Your task to perform on an android device: turn on data saver in the chrome app Image 0: 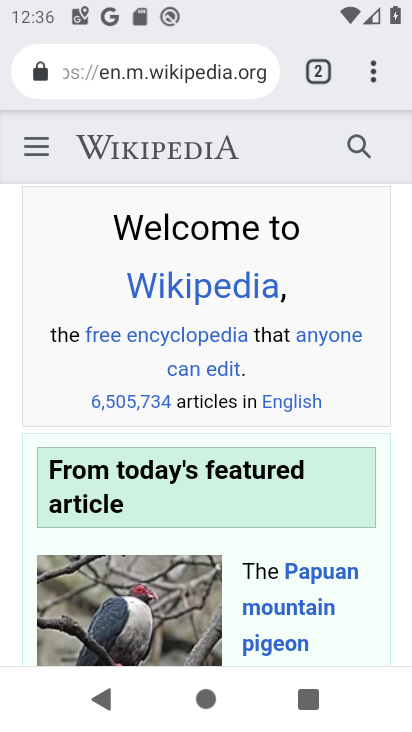
Step 0: click (375, 75)
Your task to perform on an android device: turn on data saver in the chrome app Image 1: 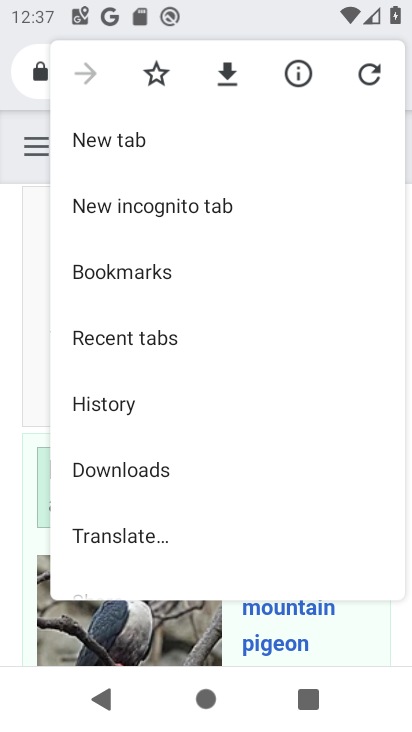
Step 1: drag from (268, 525) to (284, 159)
Your task to perform on an android device: turn on data saver in the chrome app Image 2: 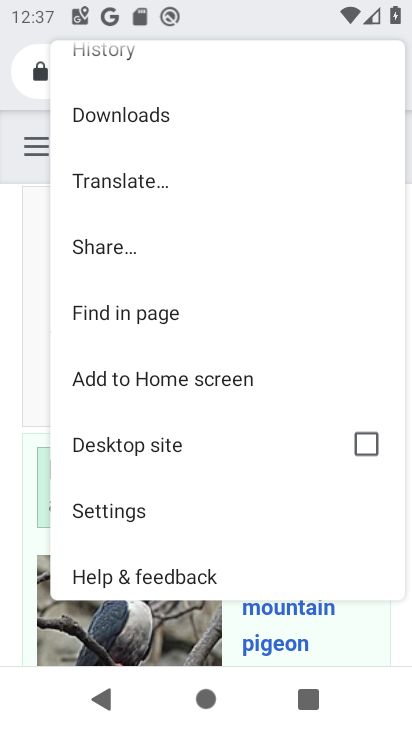
Step 2: click (126, 506)
Your task to perform on an android device: turn on data saver in the chrome app Image 3: 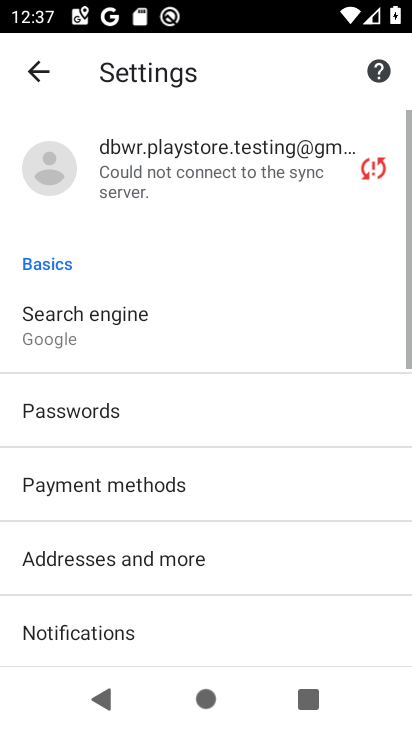
Step 3: drag from (283, 591) to (271, 149)
Your task to perform on an android device: turn on data saver in the chrome app Image 4: 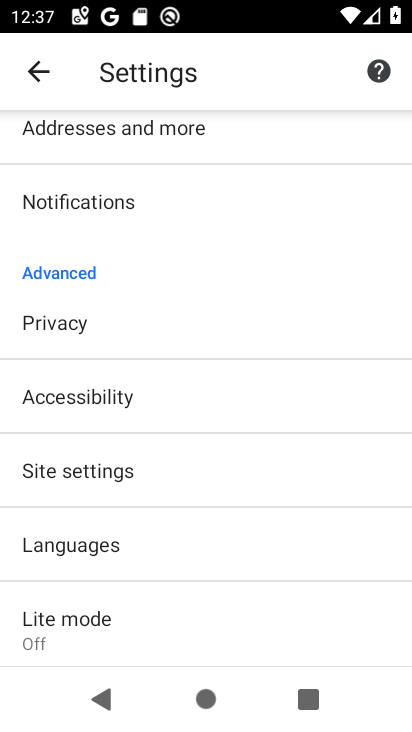
Step 4: click (58, 622)
Your task to perform on an android device: turn on data saver in the chrome app Image 5: 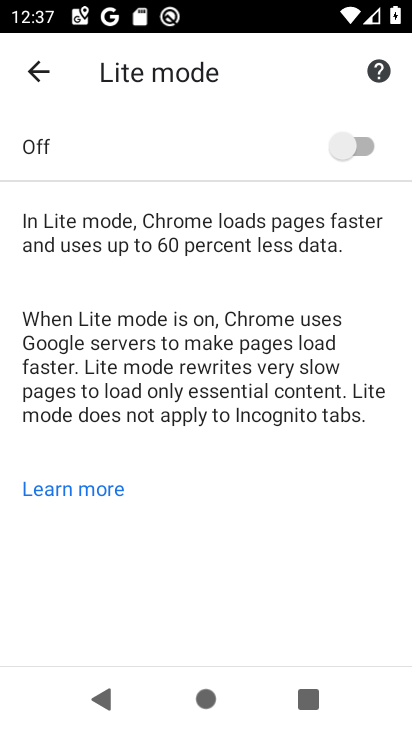
Step 5: click (350, 142)
Your task to perform on an android device: turn on data saver in the chrome app Image 6: 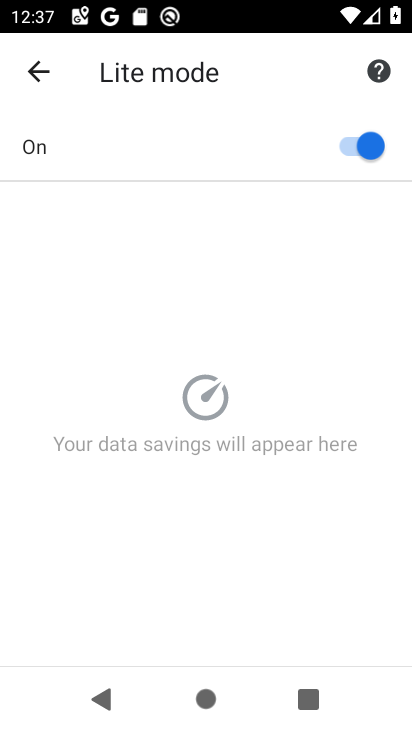
Step 6: task complete